Your task to perform on an android device: Open CNN.com Image 0: 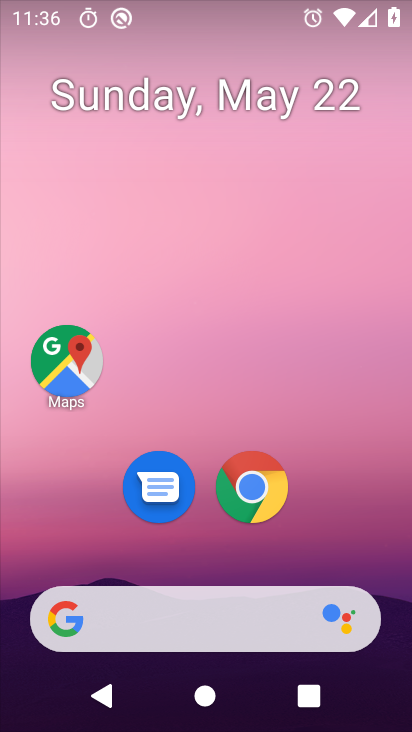
Step 0: drag from (322, 536) to (324, 142)
Your task to perform on an android device: Open CNN.com Image 1: 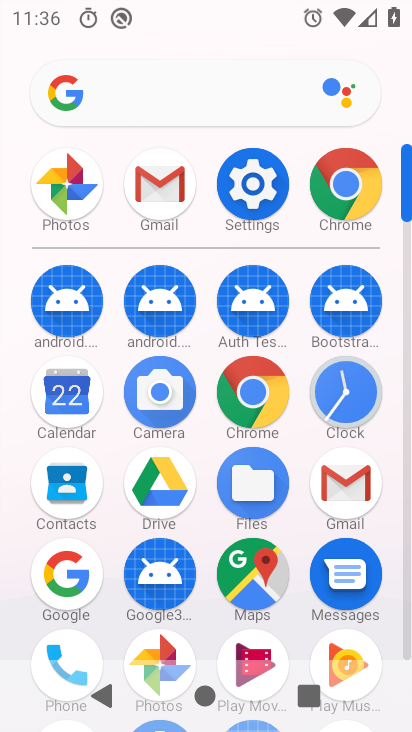
Step 1: click (220, 399)
Your task to perform on an android device: Open CNN.com Image 2: 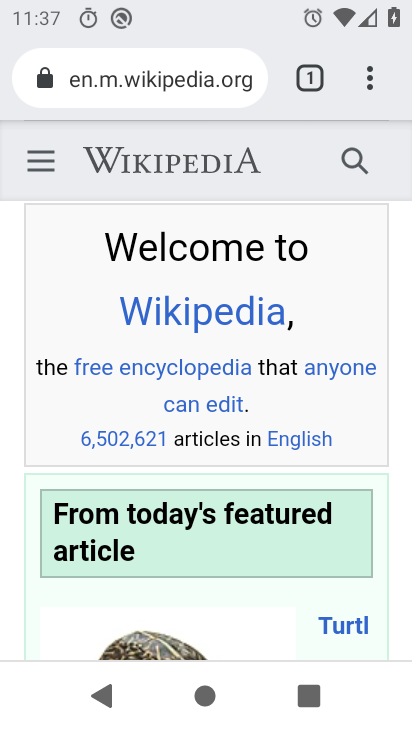
Step 2: click (197, 82)
Your task to perform on an android device: Open CNN.com Image 3: 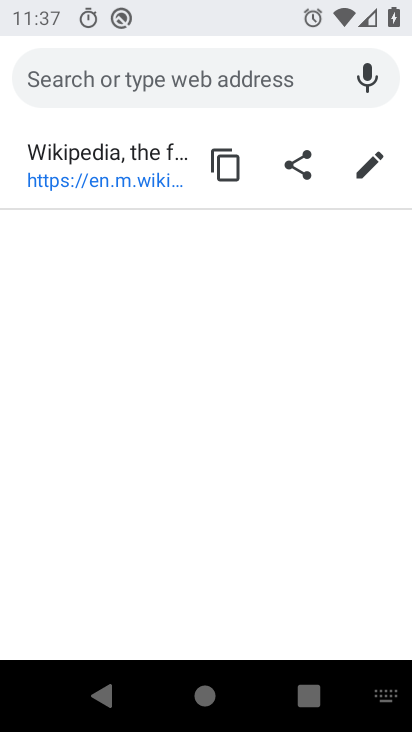
Step 3: type "cnn.com"
Your task to perform on an android device: Open CNN.com Image 4: 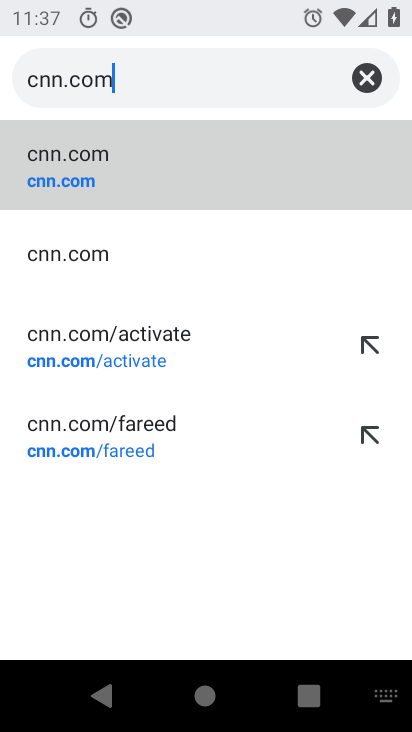
Step 4: click (119, 186)
Your task to perform on an android device: Open CNN.com Image 5: 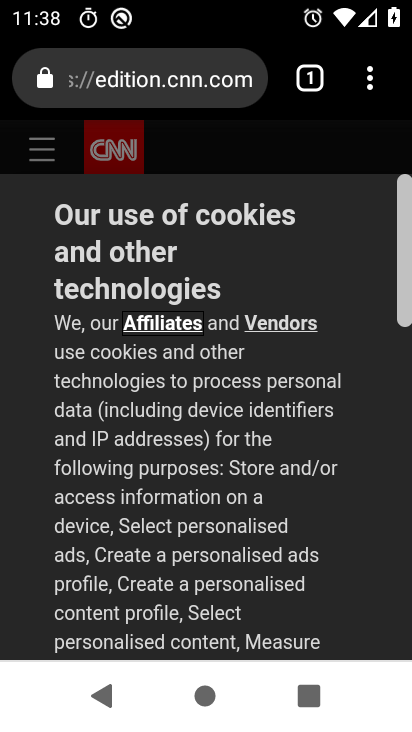
Step 5: task complete